Your task to perform on an android device: What's the weather? Image 0: 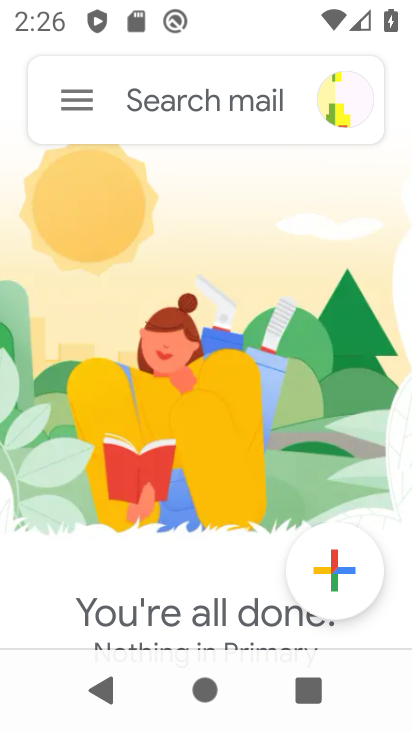
Step 0: press home button
Your task to perform on an android device: What's the weather? Image 1: 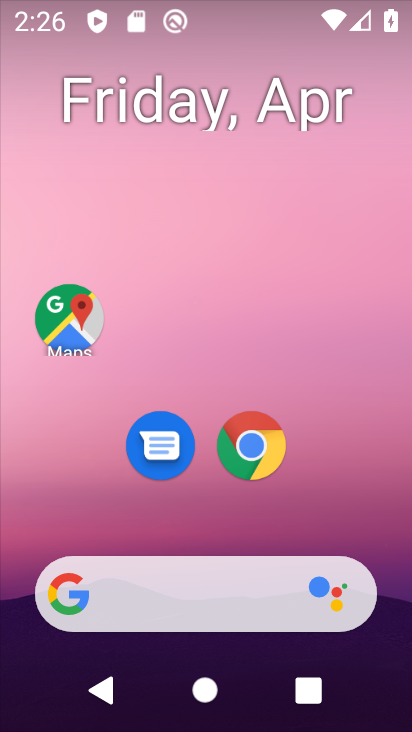
Step 1: drag from (337, 426) to (303, 49)
Your task to perform on an android device: What's the weather? Image 2: 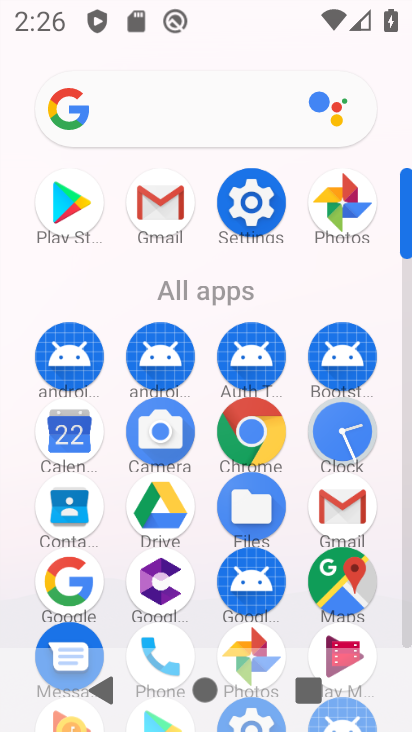
Step 2: click (68, 582)
Your task to perform on an android device: What's the weather? Image 3: 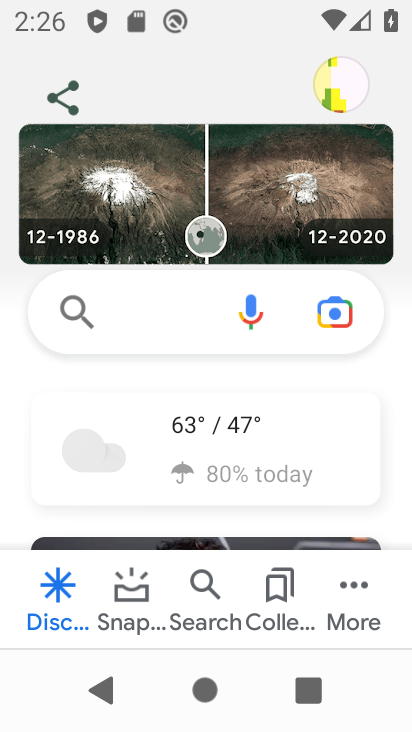
Step 3: click (167, 311)
Your task to perform on an android device: What's the weather? Image 4: 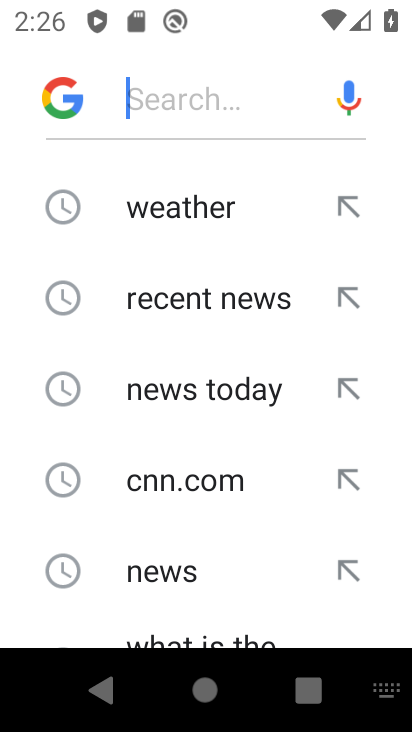
Step 4: click (196, 204)
Your task to perform on an android device: What's the weather? Image 5: 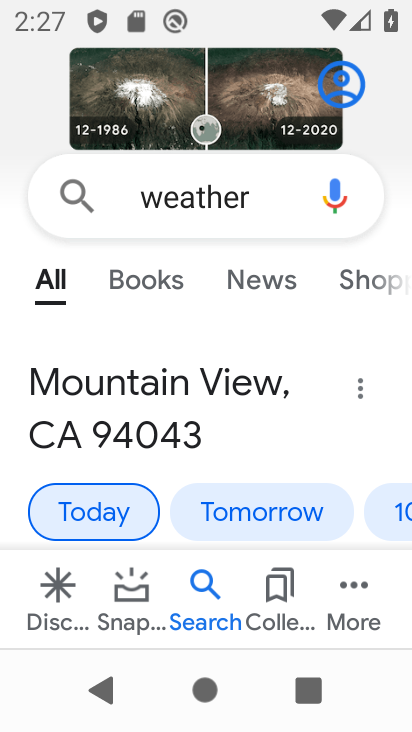
Step 5: task complete